Your task to perform on an android device: View the shopping cart on costco. Image 0: 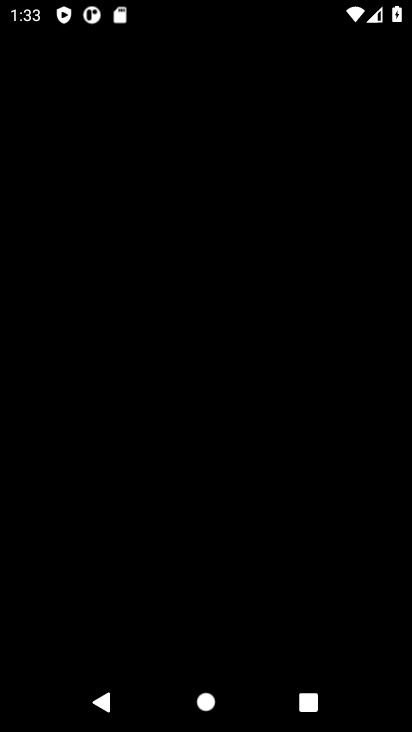
Step 0: press home button
Your task to perform on an android device: View the shopping cart on costco. Image 1: 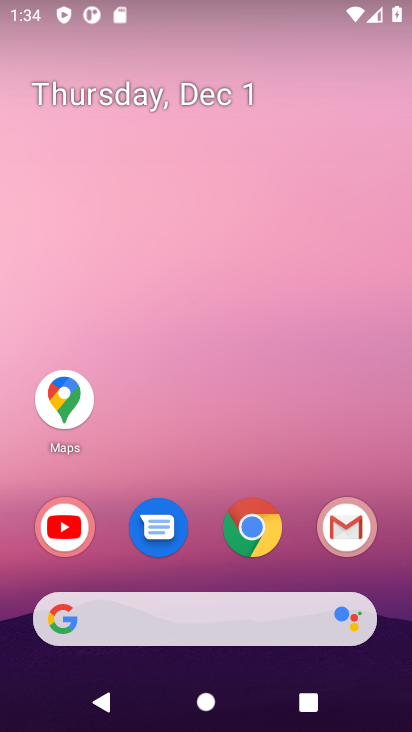
Step 1: click (236, 542)
Your task to perform on an android device: View the shopping cart on costco. Image 2: 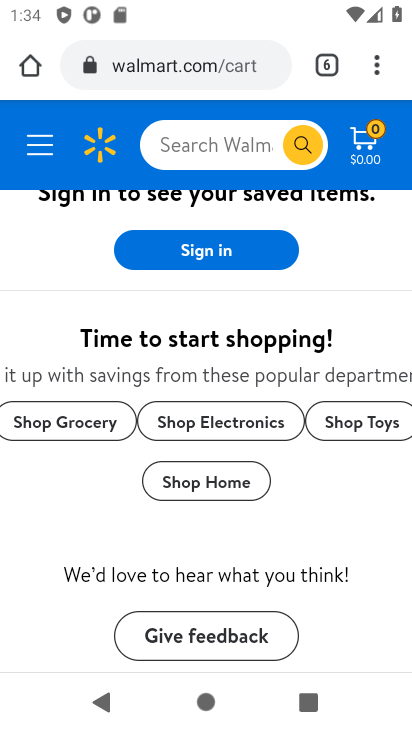
Step 2: click (167, 65)
Your task to perform on an android device: View the shopping cart on costco. Image 3: 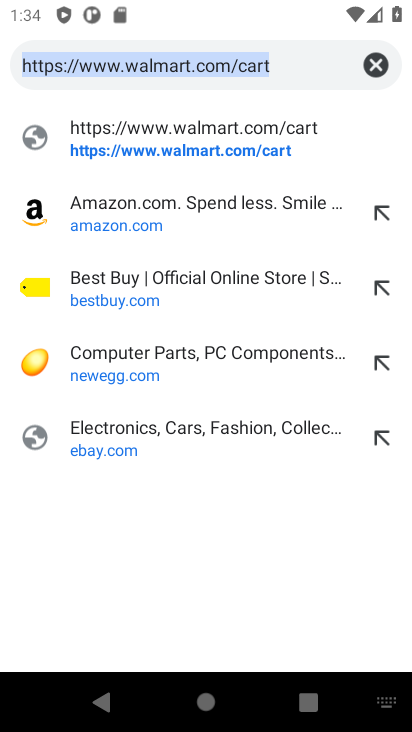
Step 3: type "costco.com"
Your task to perform on an android device: View the shopping cart on costco. Image 4: 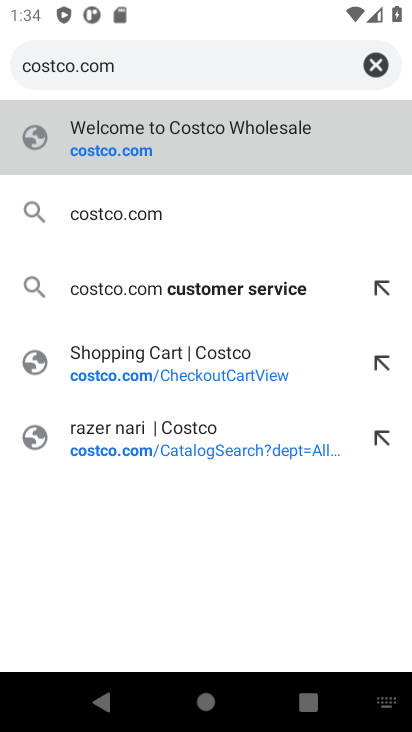
Step 4: click (75, 153)
Your task to perform on an android device: View the shopping cart on costco. Image 5: 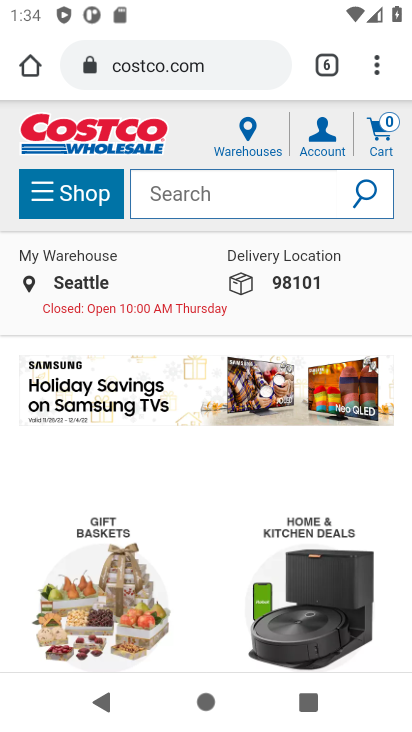
Step 5: click (389, 139)
Your task to perform on an android device: View the shopping cart on costco. Image 6: 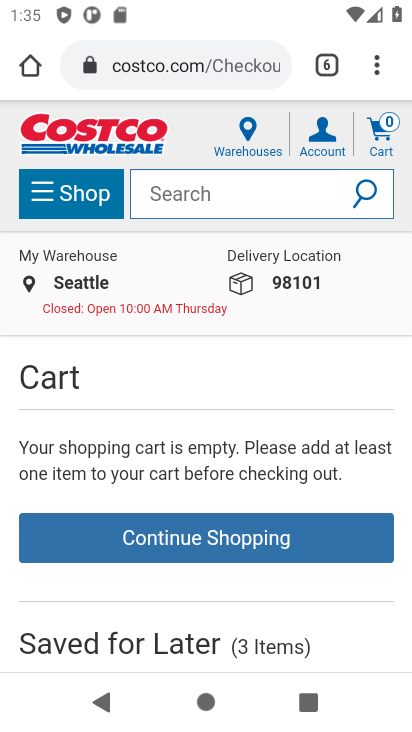
Step 6: task complete